Your task to perform on an android device: Turn off the flashlight Image 0: 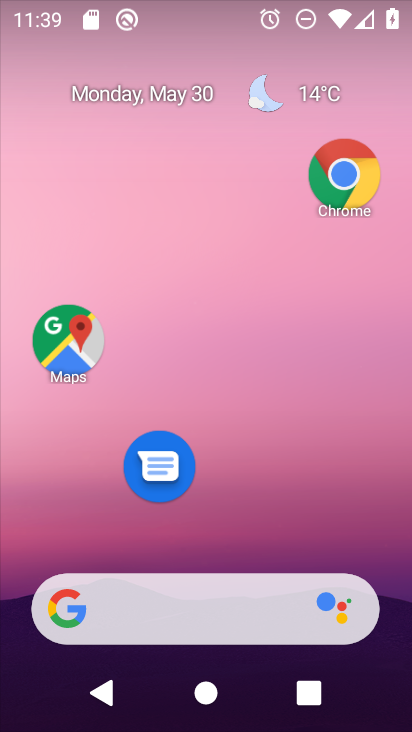
Step 0: drag from (288, 444) to (262, 112)
Your task to perform on an android device: Turn off the flashlight Image 1: 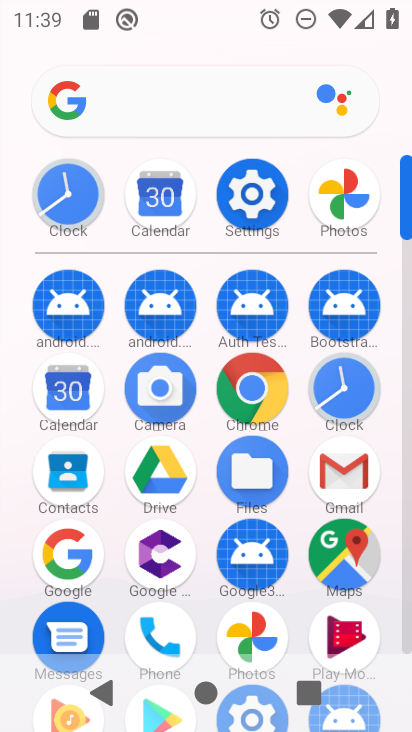
Step 1: click (237, 188)
Your task to perform on an android device: Turn off the flashlight Image 2: 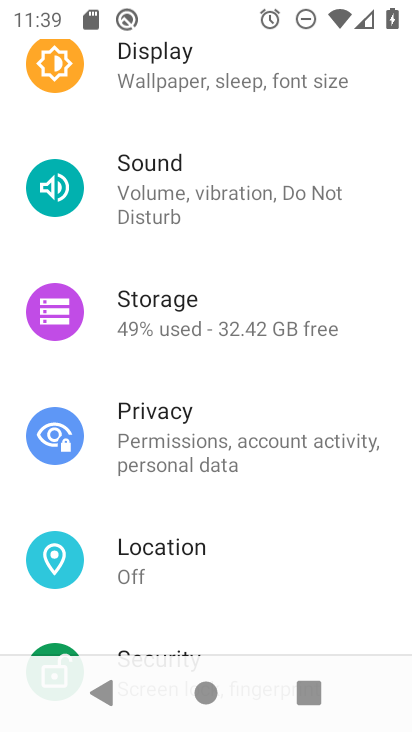
Step 2: drag from (258, 118) to (250, 444)
Your task to perform on an android device: Turn off the flashlight Image 3: 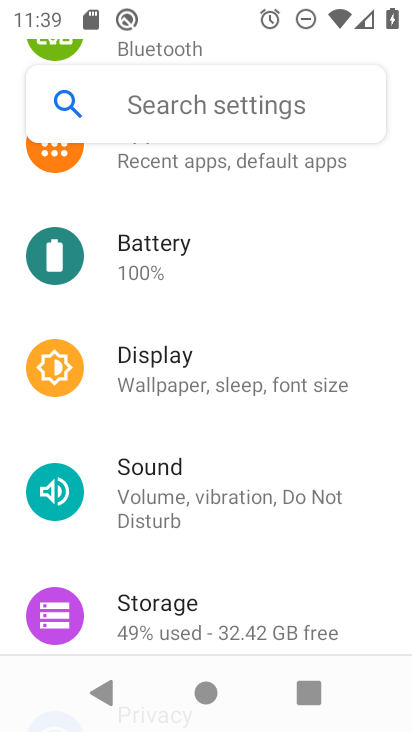
Step 3: drag from (261, 234) to (282, 503)
Your task to perform on an android device: Turn off the flashlight Image 4: 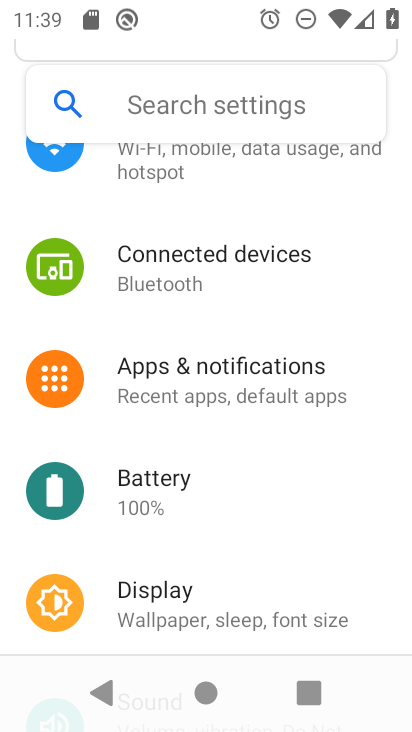
Step 4: drag from (178, 220) to (200, 438)
Your task to perform on an android device: Turn off the flashlight Image 5: 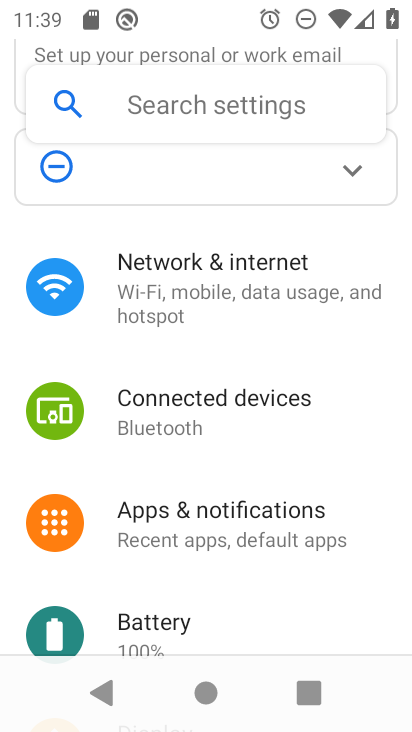
Step 5: drag from (255, 569) to (242, 351)
Your task to perform on an android device: Turn off the flashlight Image 6: 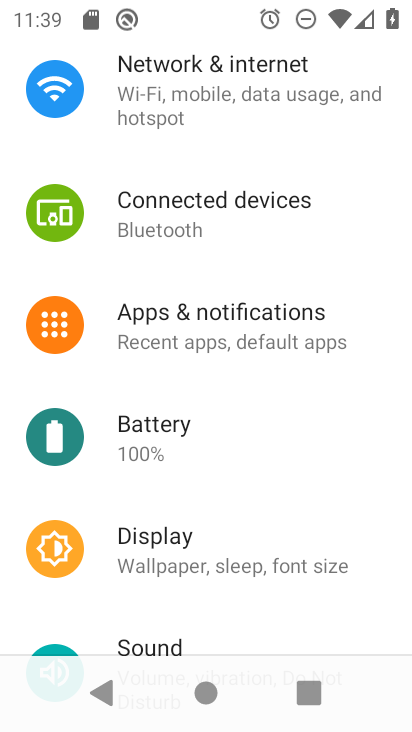
Step 6: click (212, 540)
Your task to perform on an android device: Turn off the flashlight Image 7: 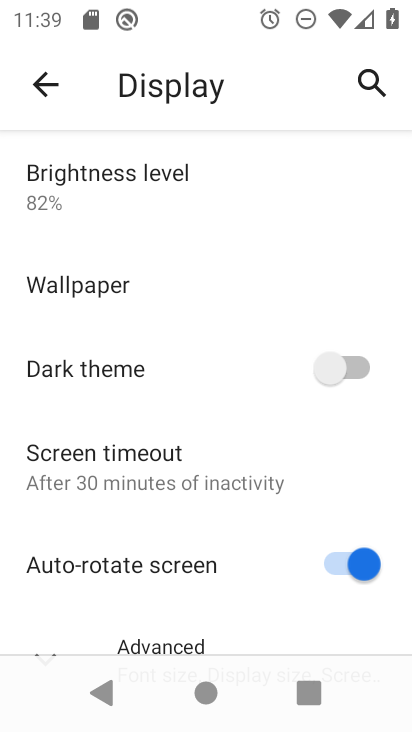
Step 7: drag from (146, 550) to (109, 222)
Your task to perform on an android device: Turn off the flashlight Image 8: 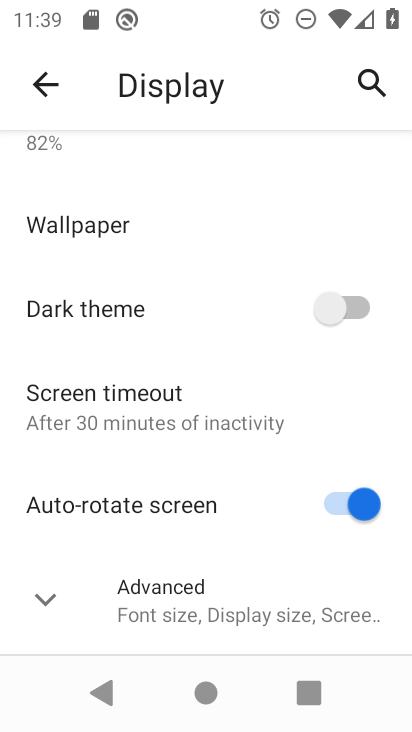
Step 8: click (118, 594)
Your task to perform on an android device: Turn off the flashlight Image 9: 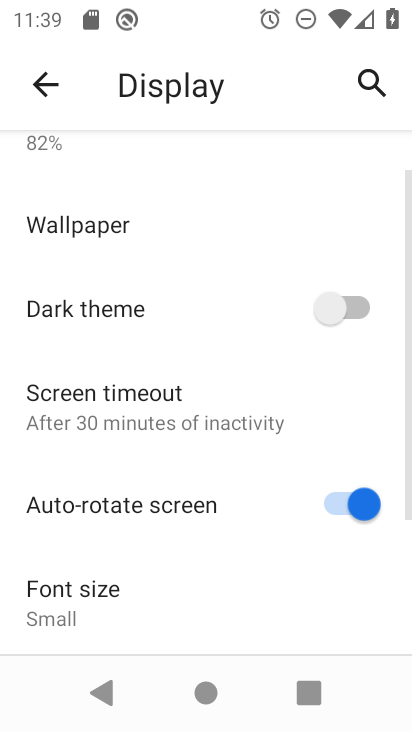
Step 9: task complete